Your task to perform on an android device: remove spam from my inbox in the gmail app Image 0: 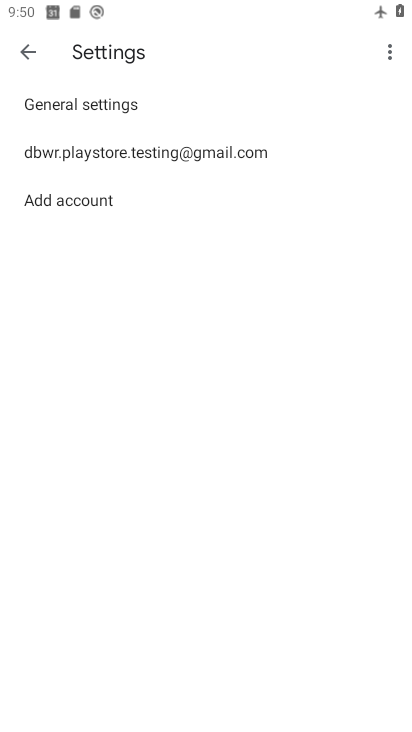
Step 0: press home button
Your task to perform on an android device: remove spam from my inbox in the gmail app Image 1: 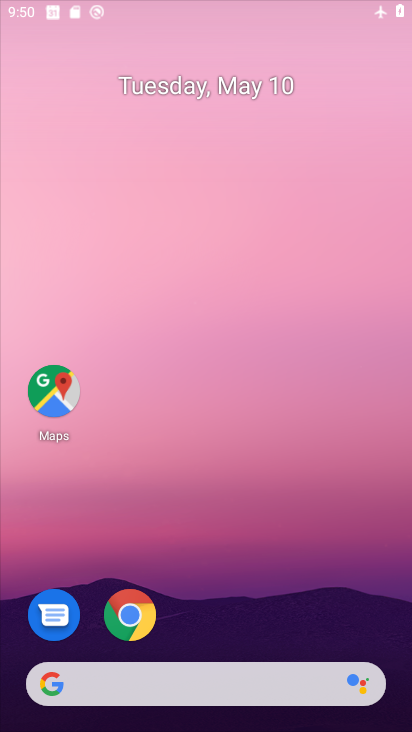
Step 1: drag from (218, 557) to (259, 86)
Your task to perform on an android device: remove spam from my inbox in the gmail app Image 2: 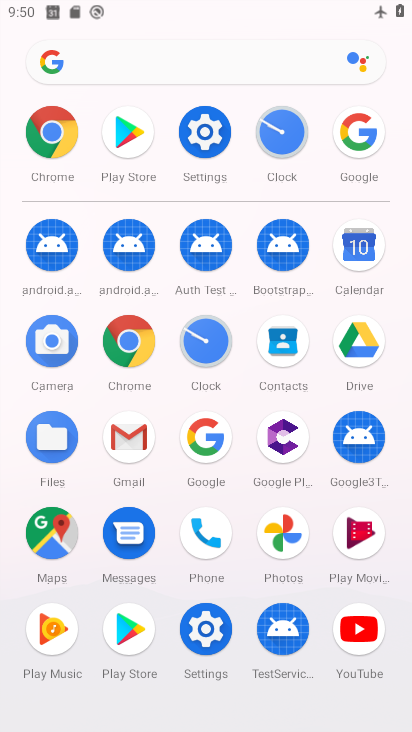
Step 2: click (124, 444)
Your task to perform on an android device: remove spam from my inbox in the gmail app Image 3: 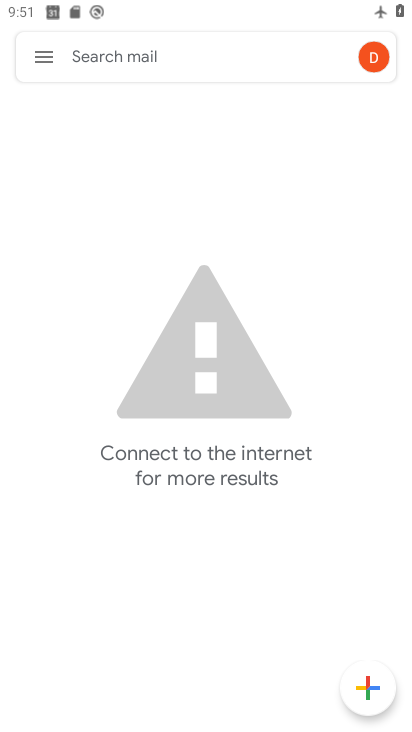
Step 3: click (52, 48)
Your task to perform on an android device: remove spam from my inbox in the gmail app Image 4: 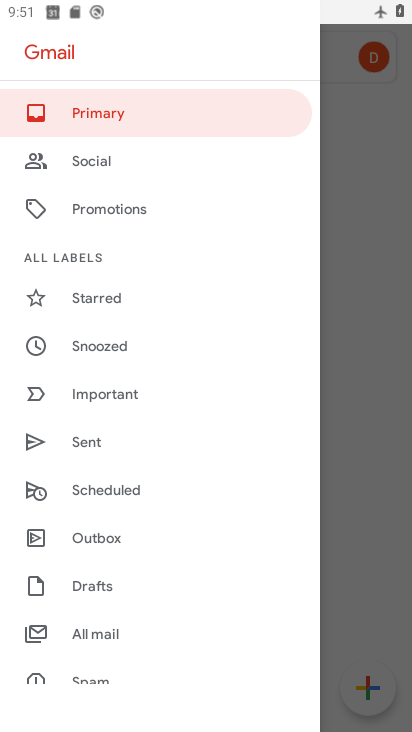
Step 4: click (86, 672)
Your task to perform on an android device: remove spam from my inbox in the gmail app Image 5: 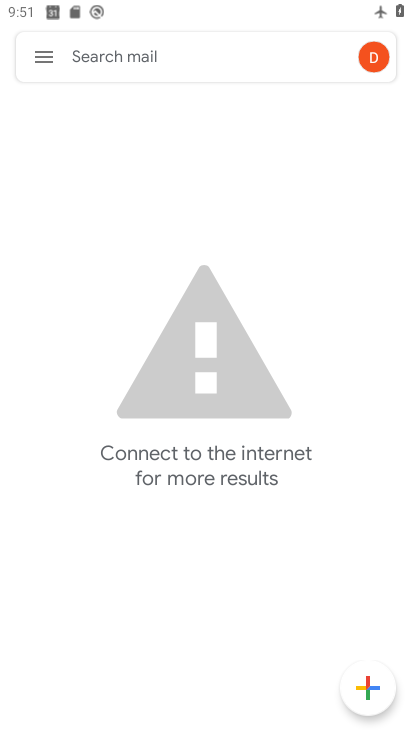
Step 5: task complete